Your task to perform on an android device: turn on wifi Image 0: 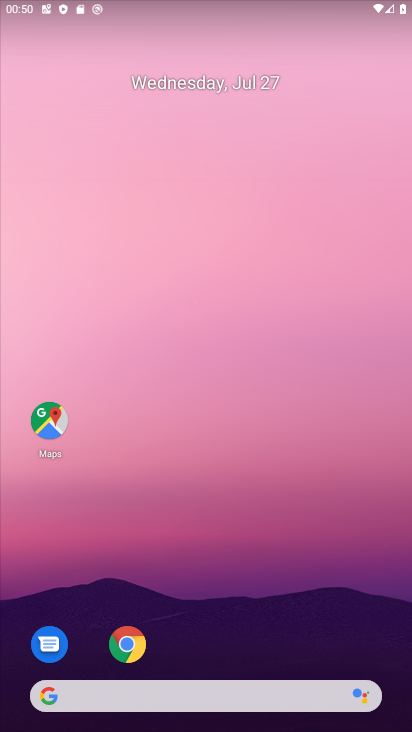
Step 0: click (394, 459)
Your task to perform on an android device: turn on wifi Image 1: 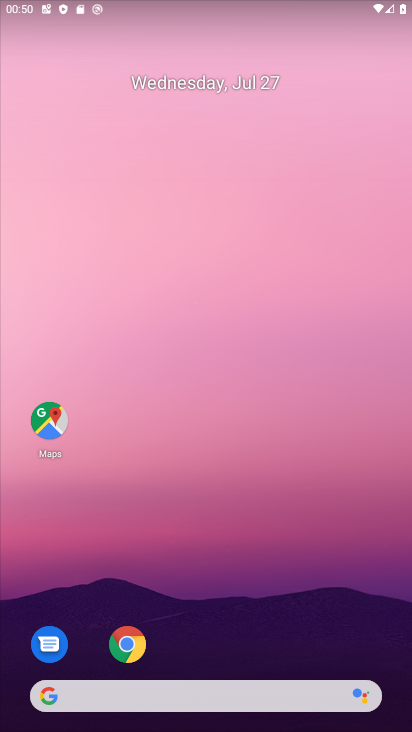
Step 1: drag from (279, 593) to (234, 166)
Your task to perform on an android device: turn on wifi Image 2: 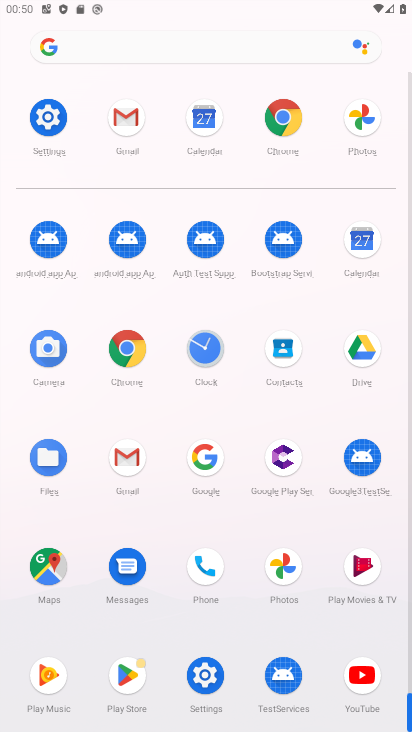
Step 2: click (36, 110)
Your task to perform on an android device: turn on wifi Image 3: 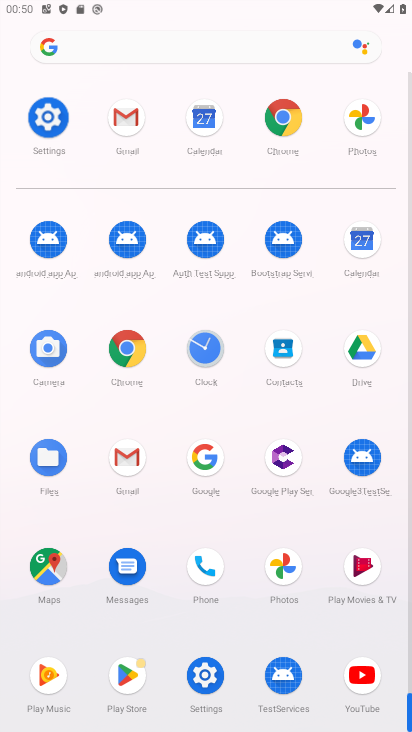
Step 3: click (38, 115)
Your task to perform on an android device: turn on wifi Image 4: 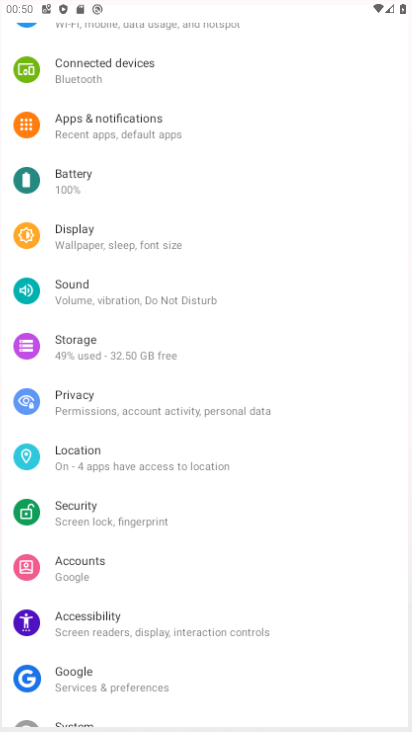
Step 4: click (43, 116)
Your task to perform on an android device: turn on wifi Image 5: 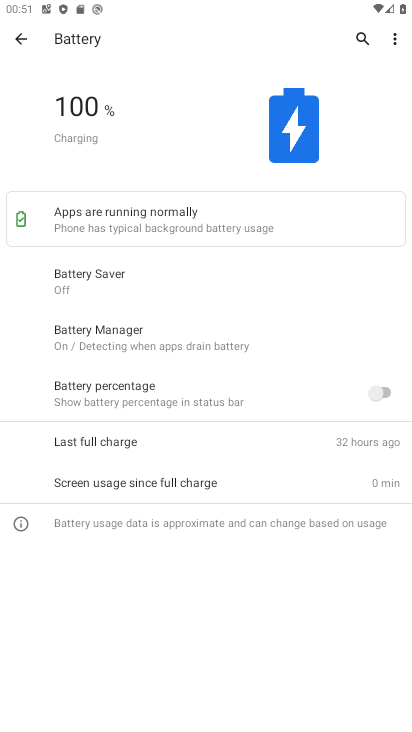
Step 5: click (21, 30)
Your task to perform on an android device: turn on wifi Image 6: 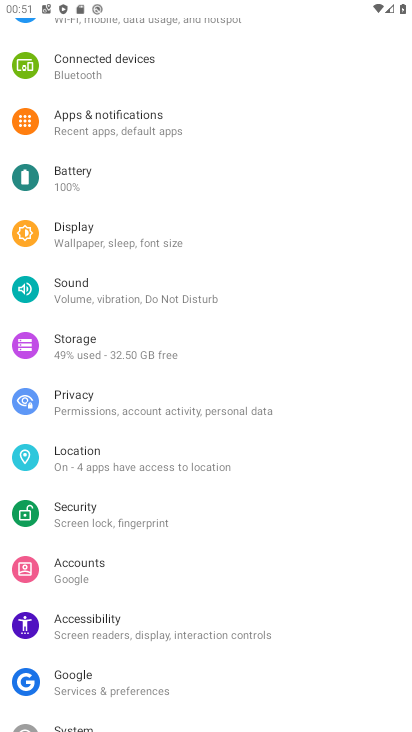
Step 6: drag from (115, 93) to (102, 386)
Your task to perform on an android device: turn on wifi Image 7: 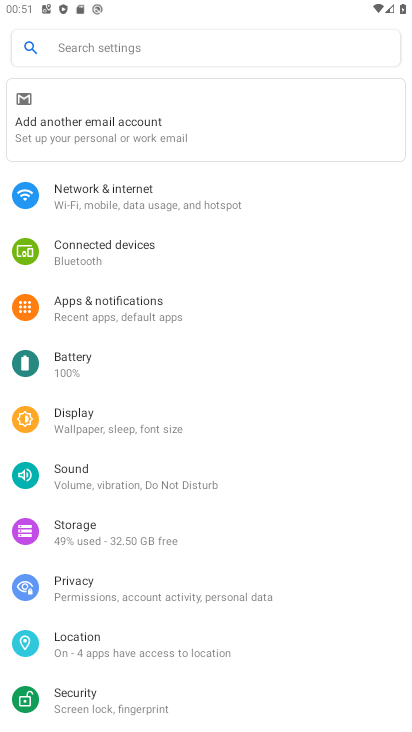
Step 7: drag from (130, 125) to (129, 378)
Your task to perform on an android device: turn on wifi Image 8: 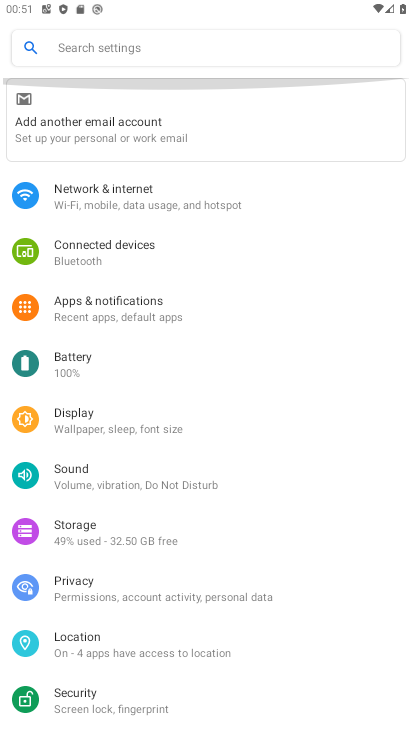
Step 8: drag from (106, 118) to (120, 438)
Your task to perform on an android device: turn on wifi Image 9: 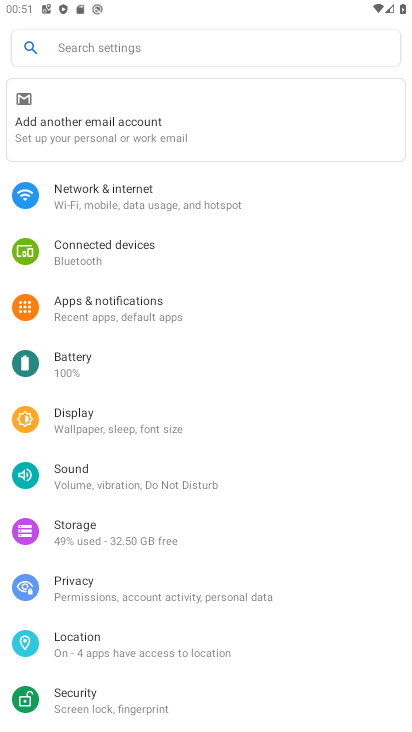
Step 9: click (100, 194)
Your task to perform on an android device: turn on wifi Image 10: 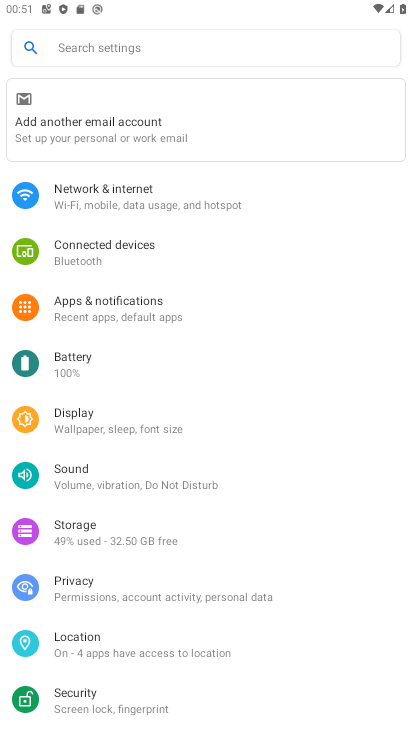
Step 10: click (100, 195)
Your task to perform on an android device: turn on wifi Image 11: 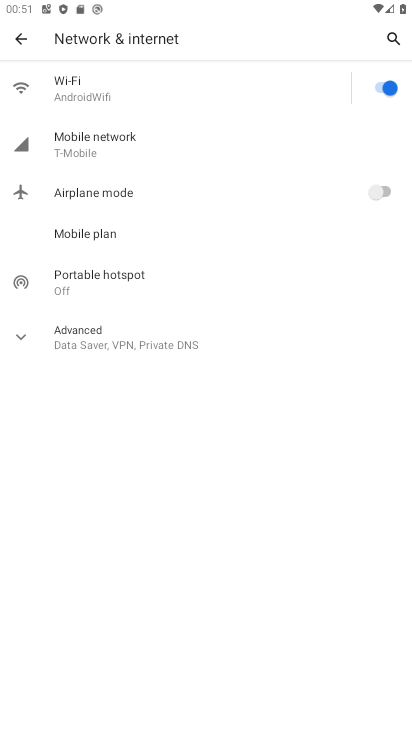
Step 11: task complete